Your task to perform on an android device: turn off picture-in-picture Image 0: 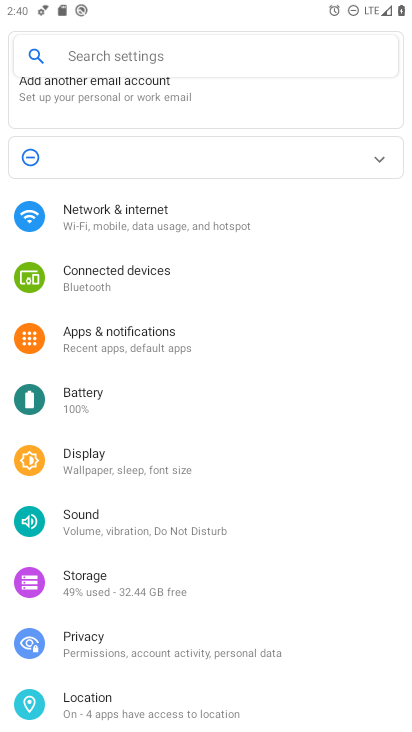
Step 0: click (121, 335)
Your task to perform on an android device: turn off picture-in-picture Image 1: 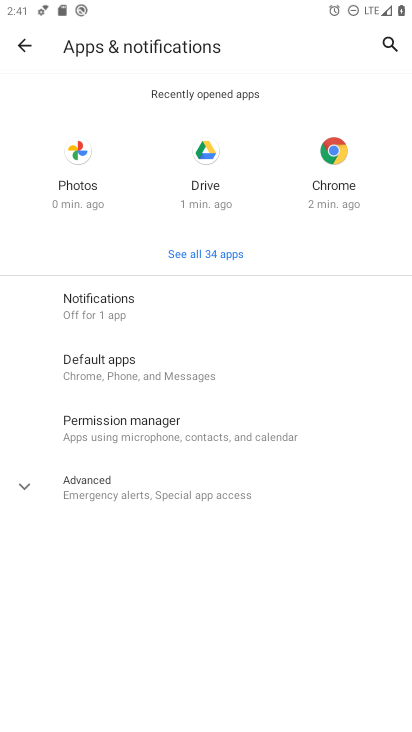
Step 1: click (23, 489)
Your task to perform on an android device: turn off picture-in-picture Image 2: 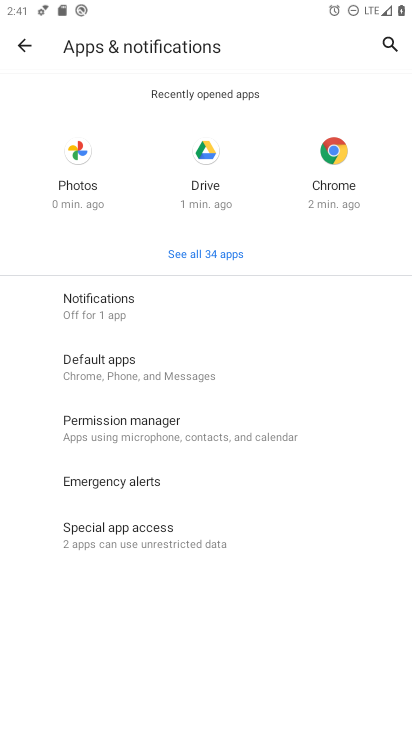
Step 2: click (113, 534)
Your task to perform on an android device: turn off picture-in-picture Image 3: 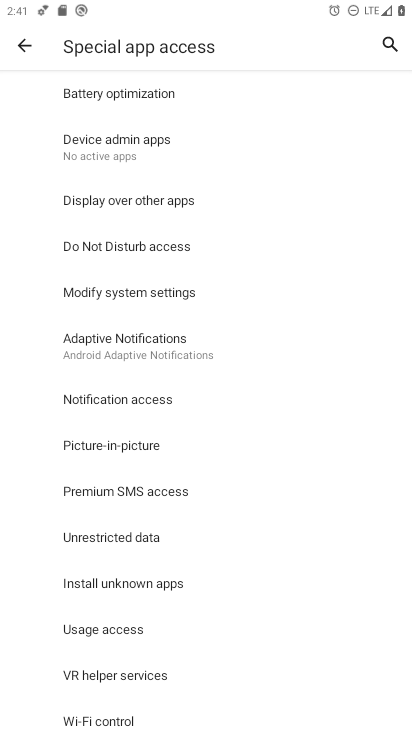
Step 3: click (97, 443)
Your task to perform on an android device: turn off picture-in-picture Image 4: 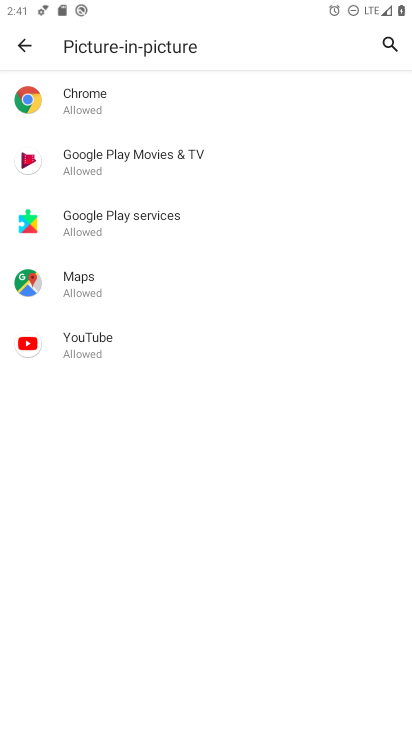
Step 4: click (84, 340)
Your task to perform on an android device: turn off picture-in-picture Image 5: 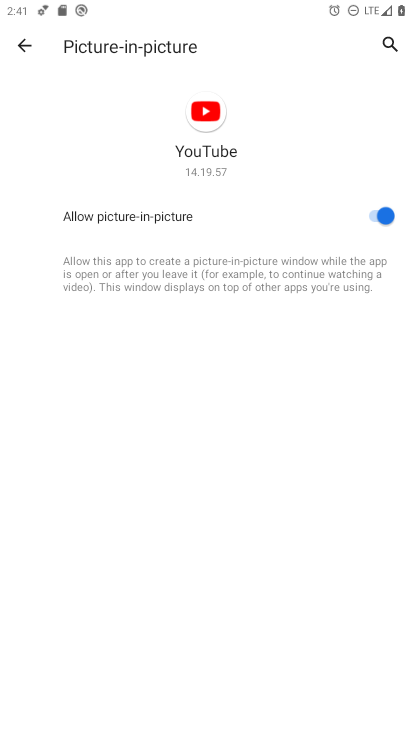
Step 5: click (367, 212)
Your task to perform on an android device: turn off picture-in-picture Image 6: 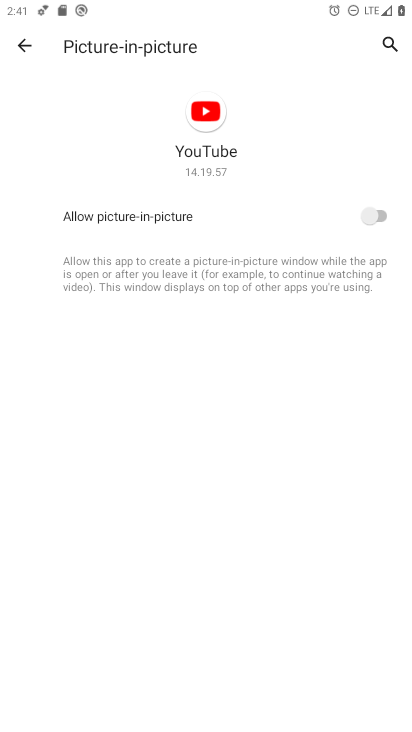
Step 6: task complete